Your task to perform on an android device: remove spam from my inbox in the gmail app Image 0: 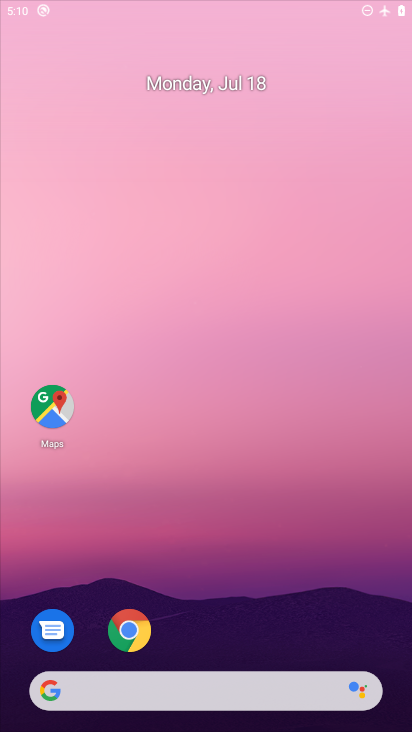
Step 0: press home button
Your task to perform on an android device: remove spam from my inbox in the gmail app Image 1: 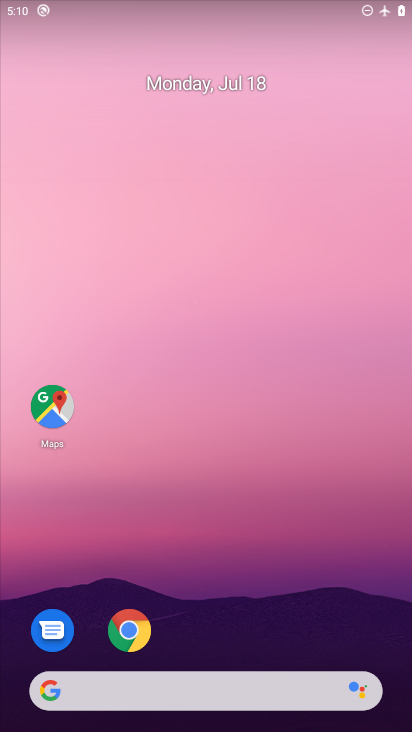
Step 1: drag from (242, 645) to (264, 172)
Your task to perform on an android device: remove spam from my inbox in the gmail app Image 2: 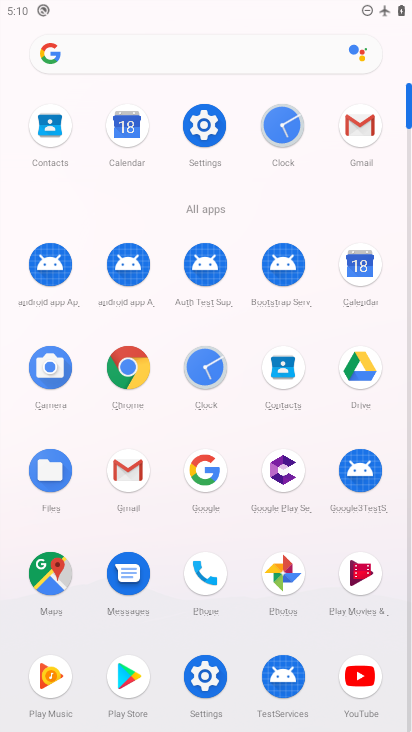
Step 2: click (123, 461)
Your task to perform on an android device: remove spam from my inbox in the gmail app Image 3: 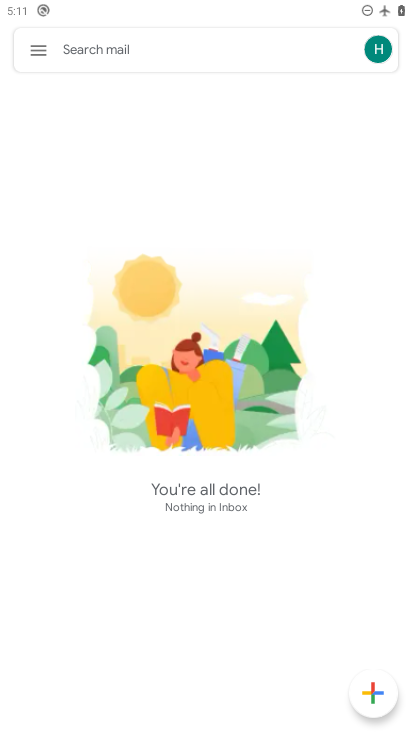
Step 3: click (31, 51)
Your task to perform on an android device: remove spam from my inbox in the gmail app Image 4: 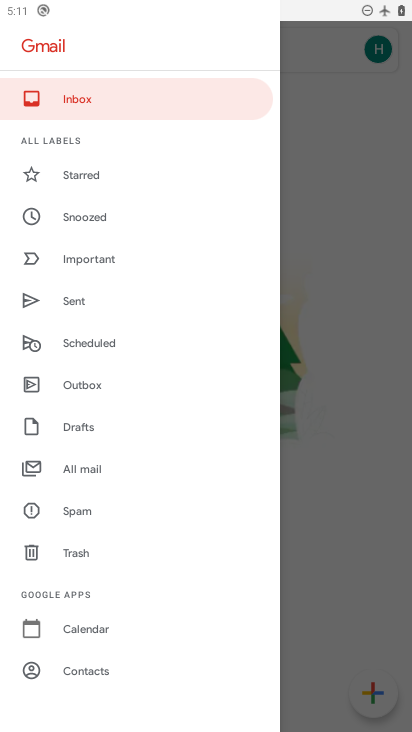
Step 4: click (89, 508)
Your task to perform on an android device: remove spam from my inbox in the gmail app Image 5: 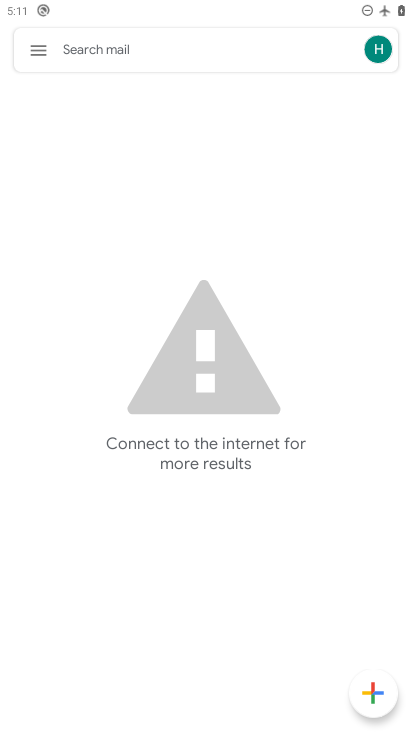
Step 5: task complete